Your task to perform on an android device: turn on wifi Image 0: 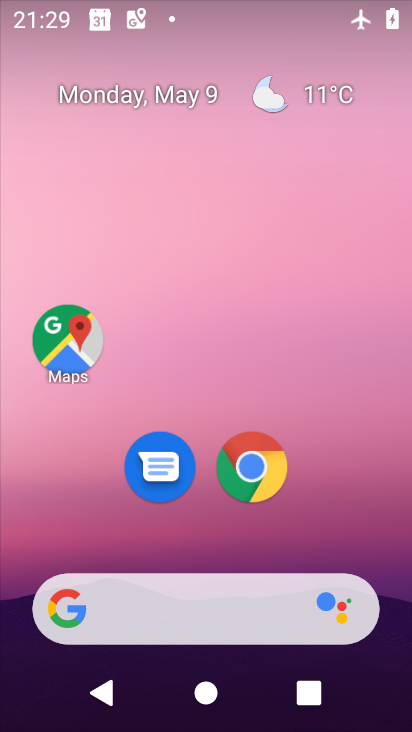
Step 0: drag from (281, 548) to (313, 290)
Your task to perform on an android device: turn on wifi Image 1: 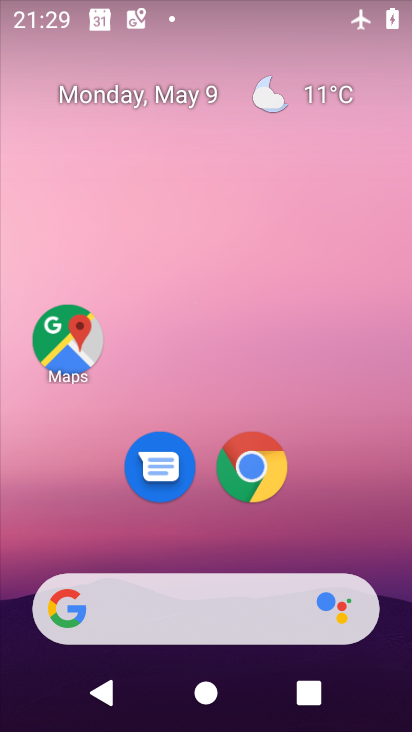
Step 1: drag from (303, 508) to (304, 232)
Your task to perform on an android device: turn on wifi Image 2: 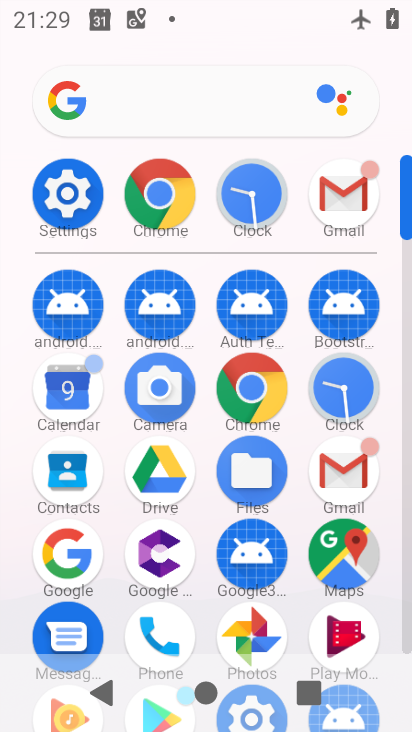
Step 2: click (77, 195)
Your task to perform on an android device: turn on wifi Image 3: 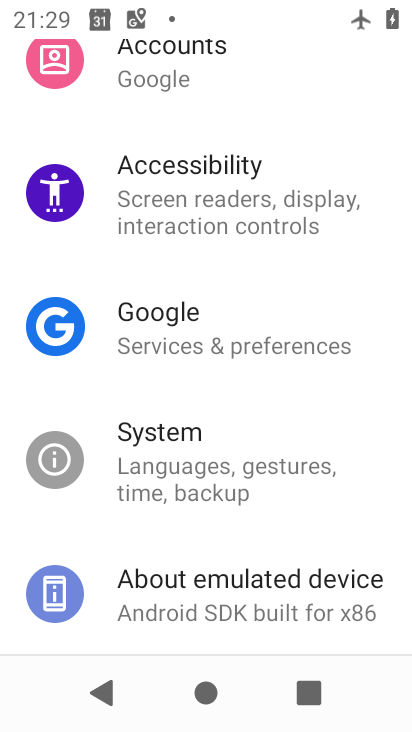
Step 3: drag from (231, 118) to (223, 555)
Your task to perform on an android device: turn on wifi Image 4: 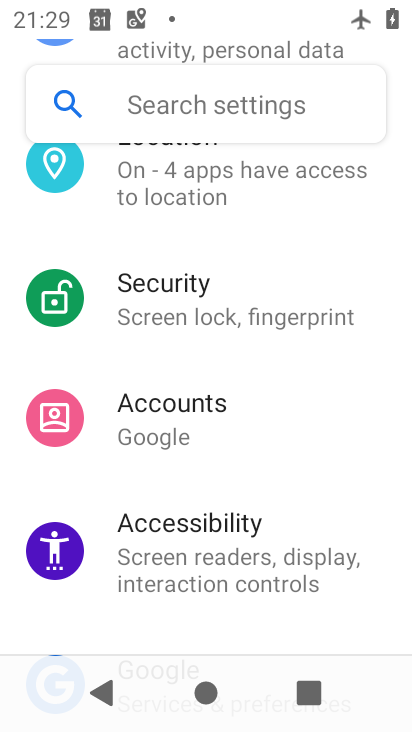
Step 4: drag from (240, 214) to (255, 576)
Your task to perform on an android device: turn on wifi Image 5: 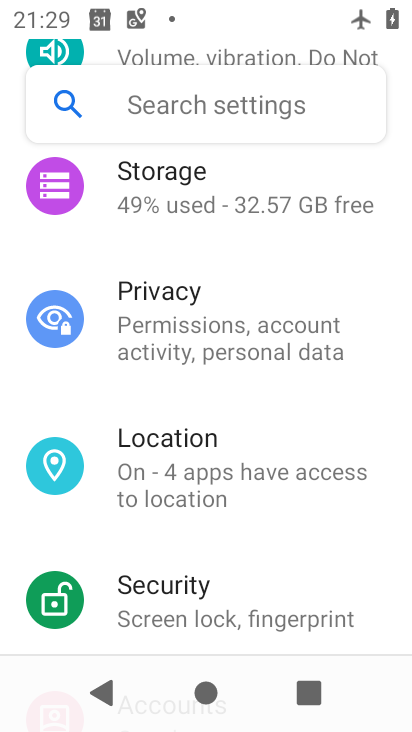
Step 5: drag from (259, 235) to (293, 686)
Your task to perform on an android device: turn on wifi Image 6: 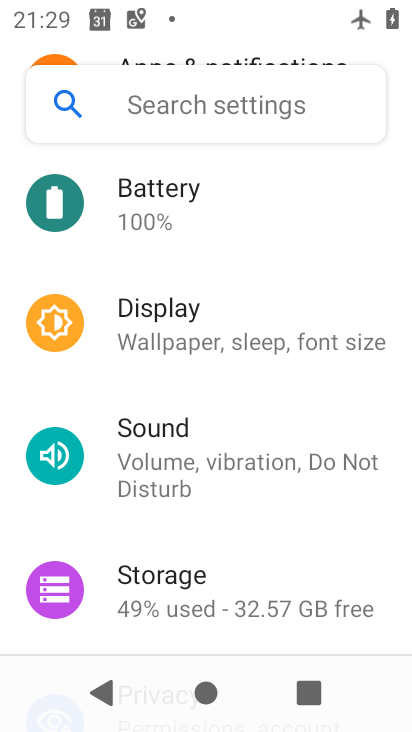
Step 6: drag from (276, 190) to (265, 653)
Your task to perform on an android device: turn on wifi Image 7: 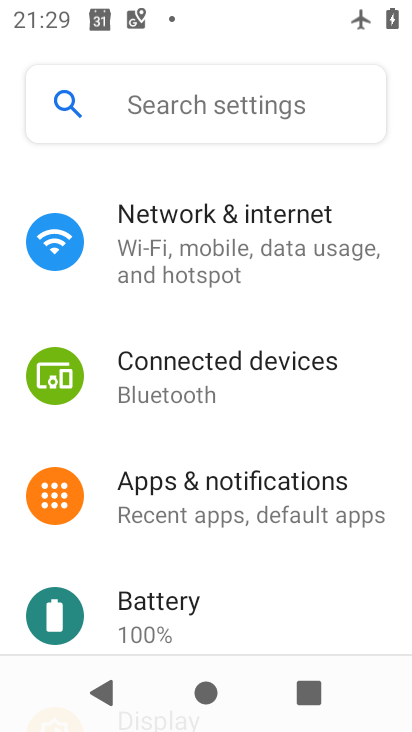
Step 7: click (222, 224)
Your task to perform on an android device: turn on wifi Image 8: 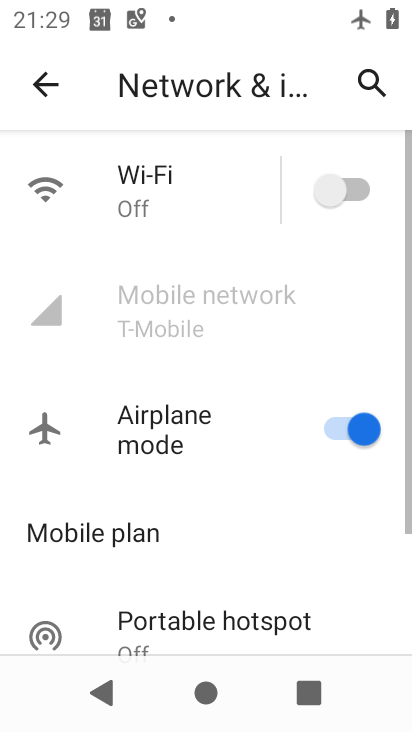
Step 8: click (342, 187)
Your task to perform on an android device: turn on wifi Image 9: 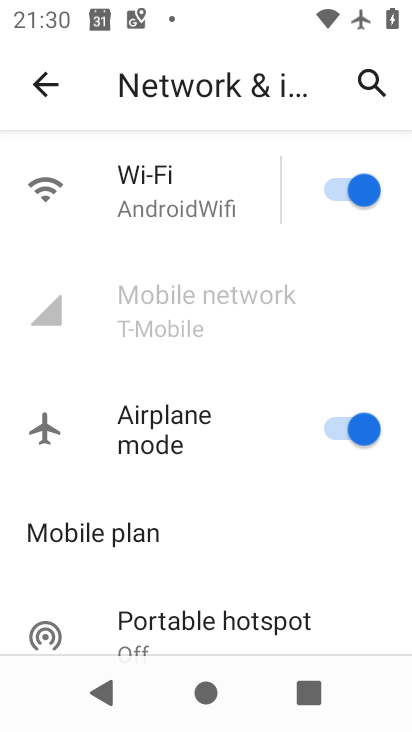
Step 9: task complete